Your task to perform on an android device: open app "AliExpress" Image 0: 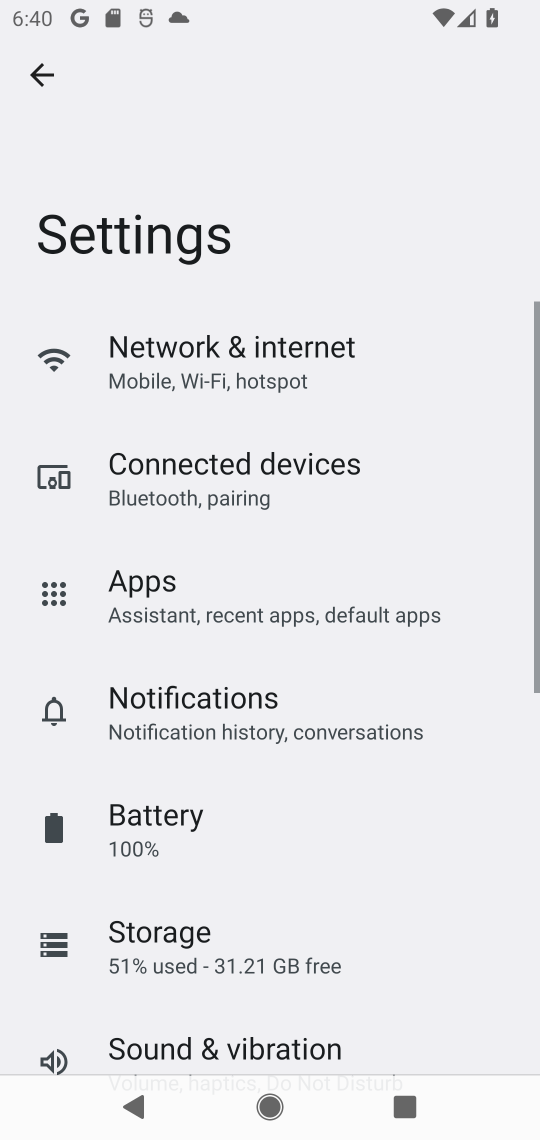
Step 0: press home button
Your task to perform on an android device: open app "AliExpress" Image 1: 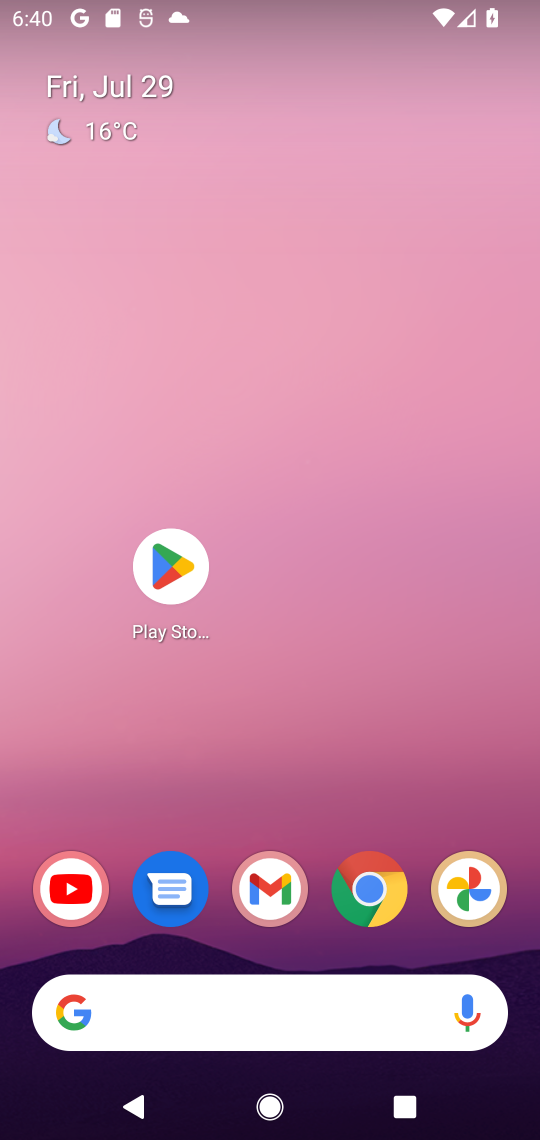
Step 1: click (187, 568)
Your task to perform on an android device: open app "AliExpress" Image 2: 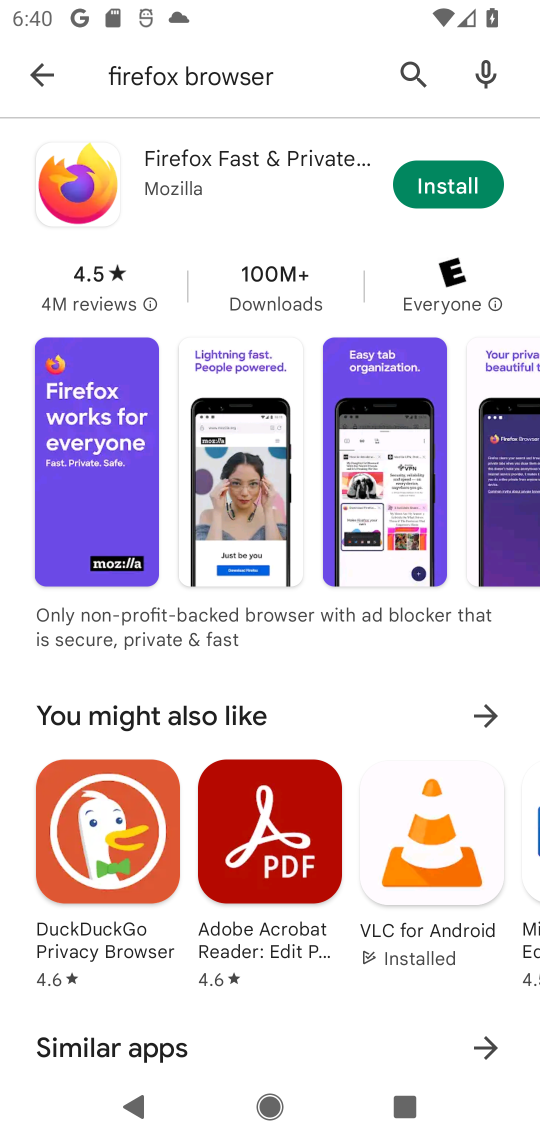
Step 2: click (412, 65)
Your task to perform on an android device: open app "AliExpress" Image 3: 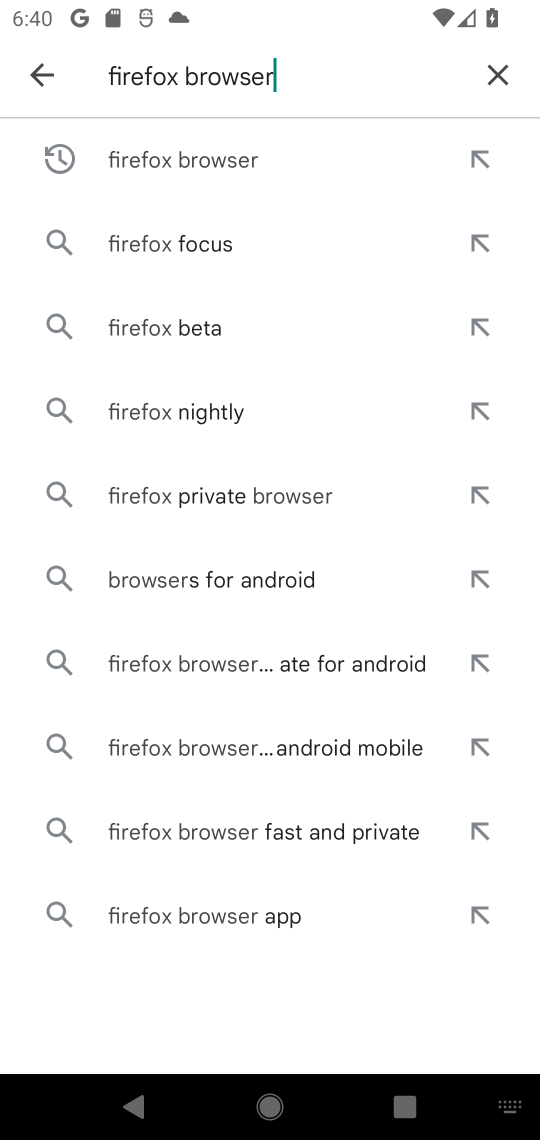
Step 3: click (497, 74)
Your task to perform on an android device: open app "AliExpress" Image 4: 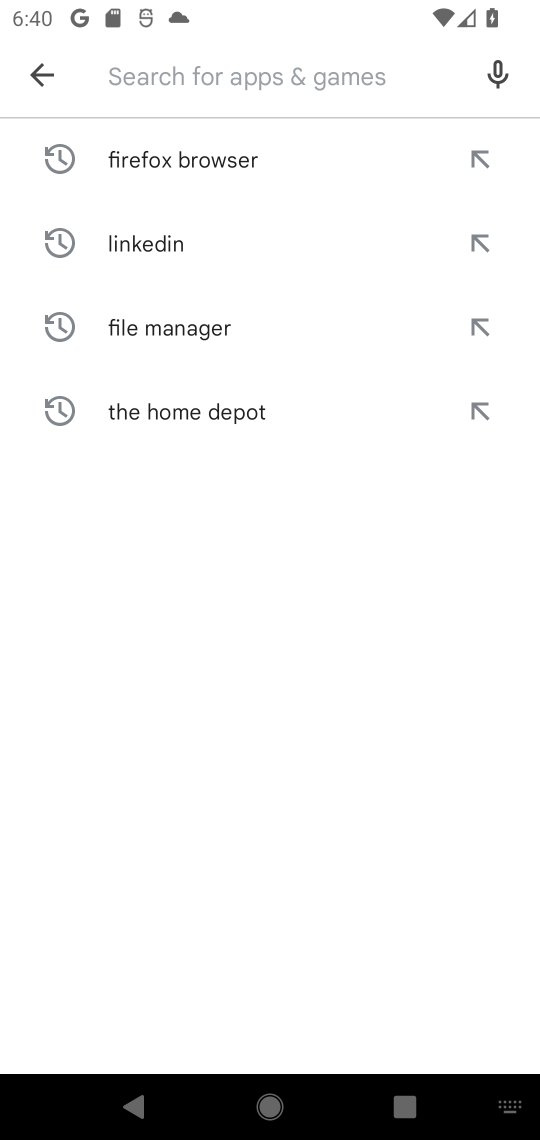
Step 4: type "AliExpress"
Your task to perform on an android device: open app "AliExpress" Image 5: 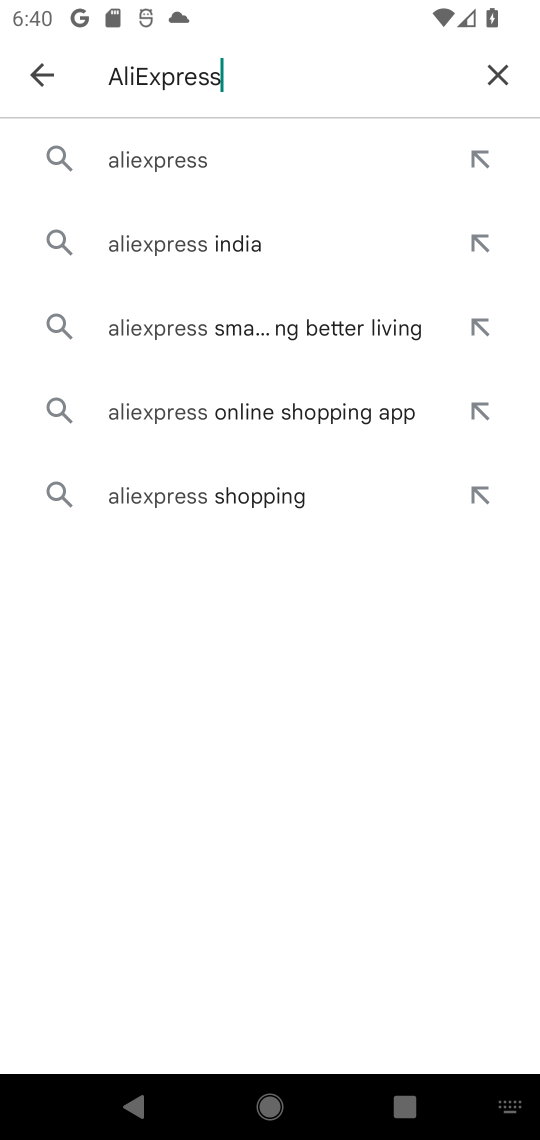
Step 5: click (191, 161)
Your task to perform on an android device: open app "AliExpress" Image 6: 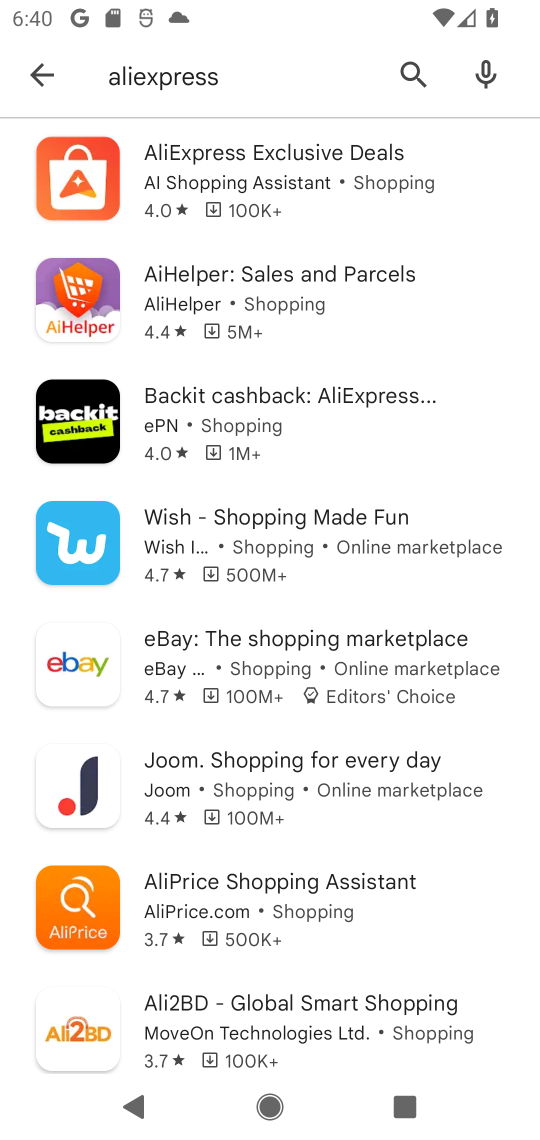
Step 6: click (219, 169)
Your task to perform on an android device: open app "AliExpress" Image 7: 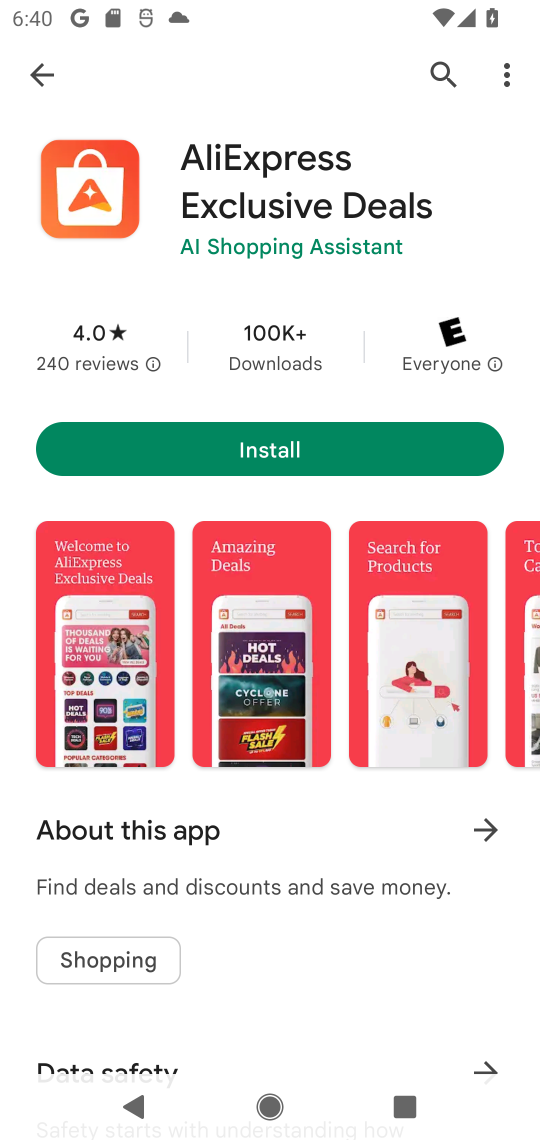
Step 7: task complete